Your task to perform on an android device: Search for "alienware area 51" on walmart.com, select the first entry, add it to the cart, then select checkout. Image 0: 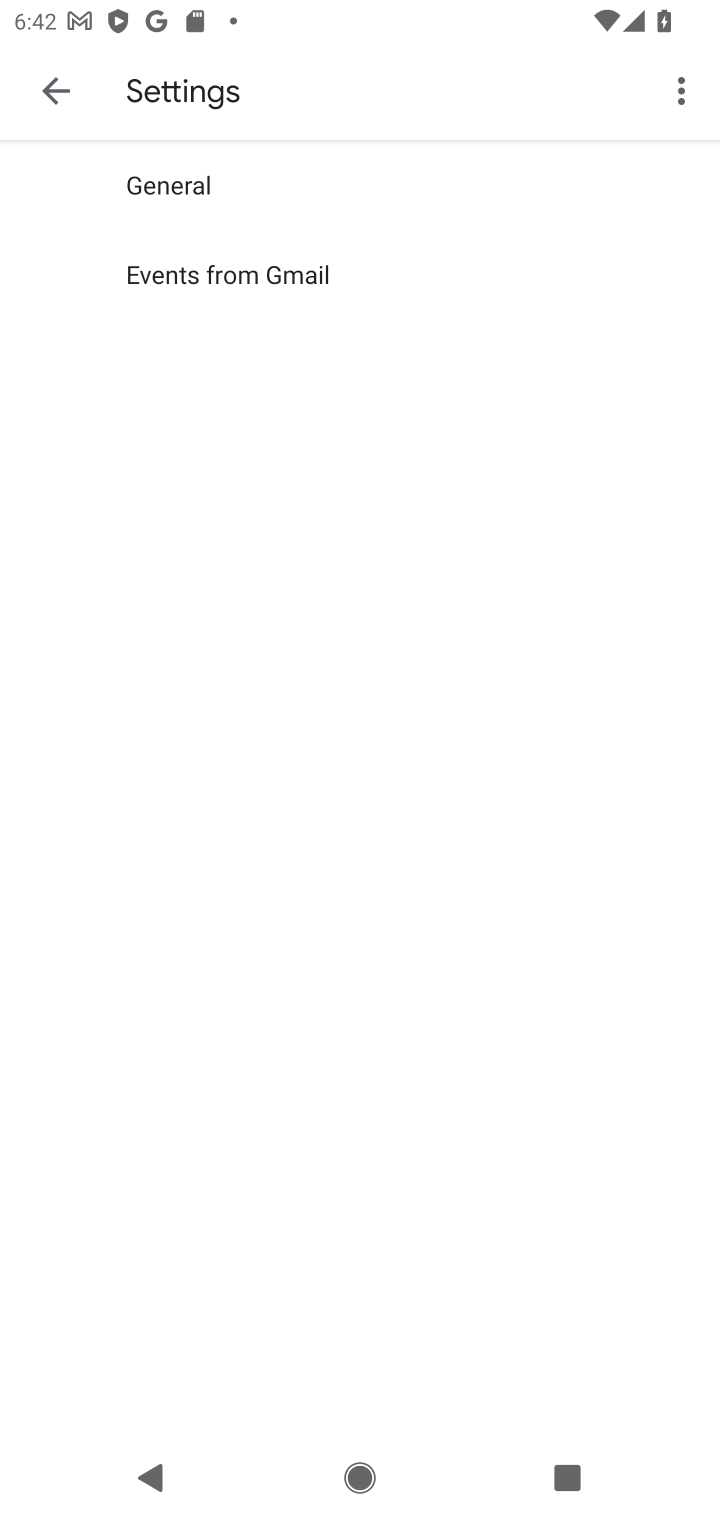
Step 0: press home button
Your task to perform on an android device: Search for "alienware area 51" on walmart.com, select the first entry, add it to the cart, then select checkout. Image 1: 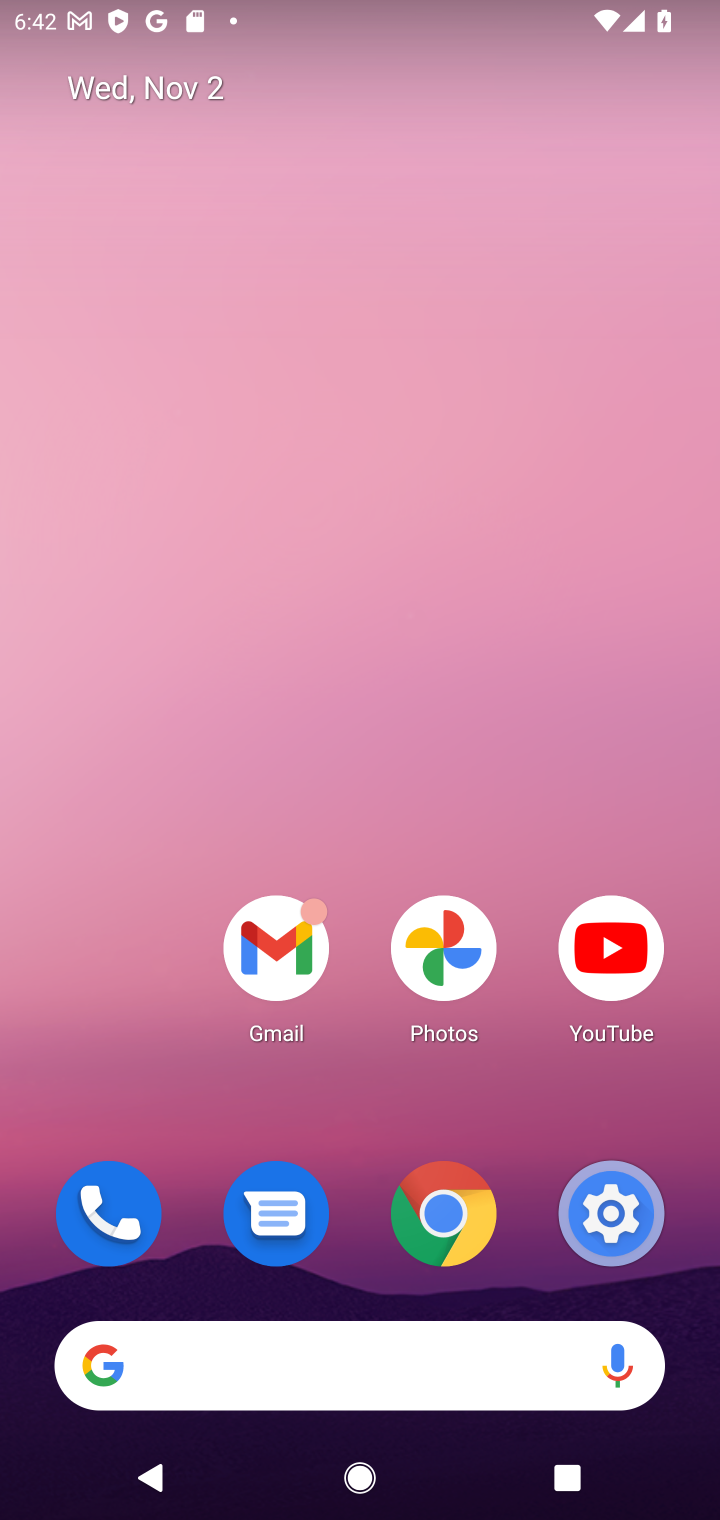
Step 1: drag from (478, 1468) to (394, 14)
Your task to perform on an android device: Search for "alienware area 51" on walmart.com, select the first entry, add it to the cart, then select checkout. Image 2: 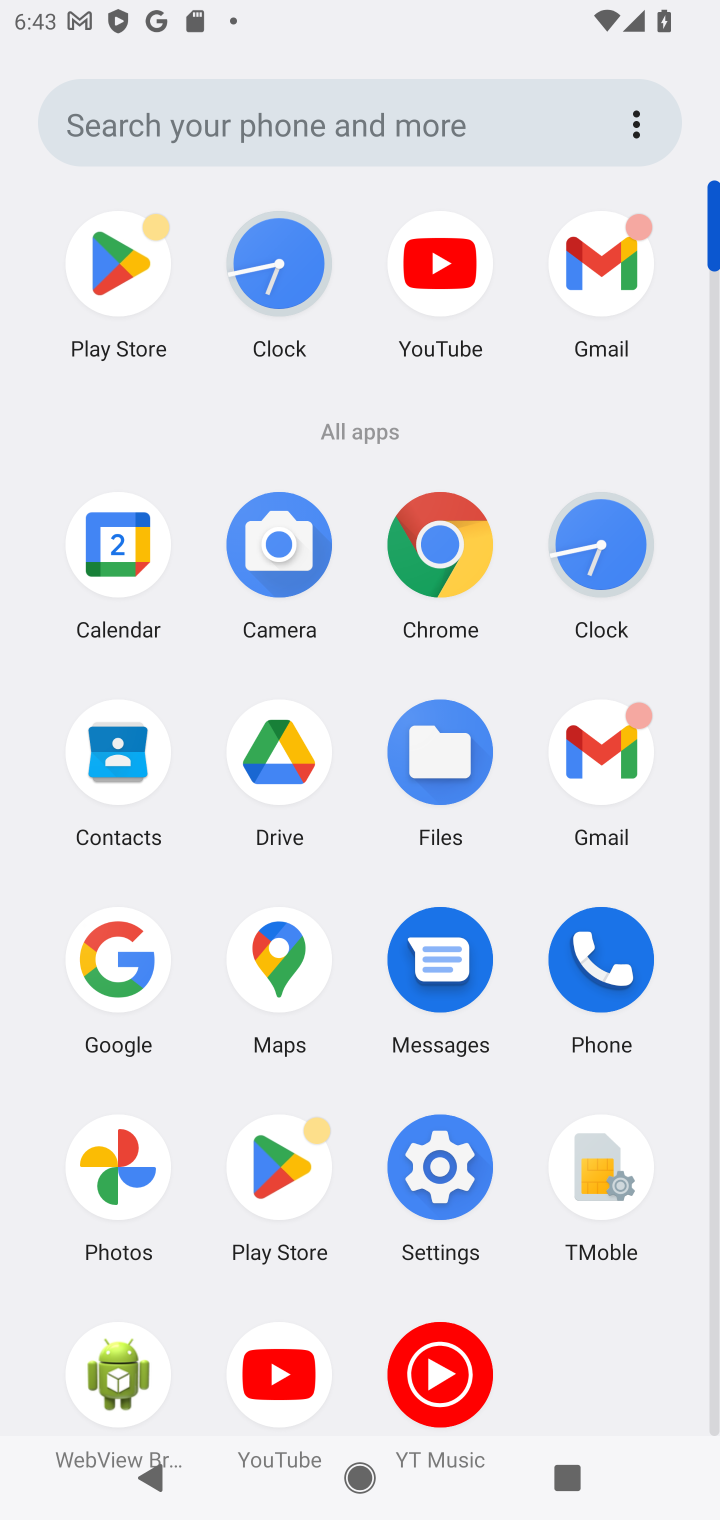
Step 2: click (429, 557)
Your task to perform on an android device: Search for "alienware area 51" on walmart.com, select the first entry, add it to the cart, then select checkout. Image 3: 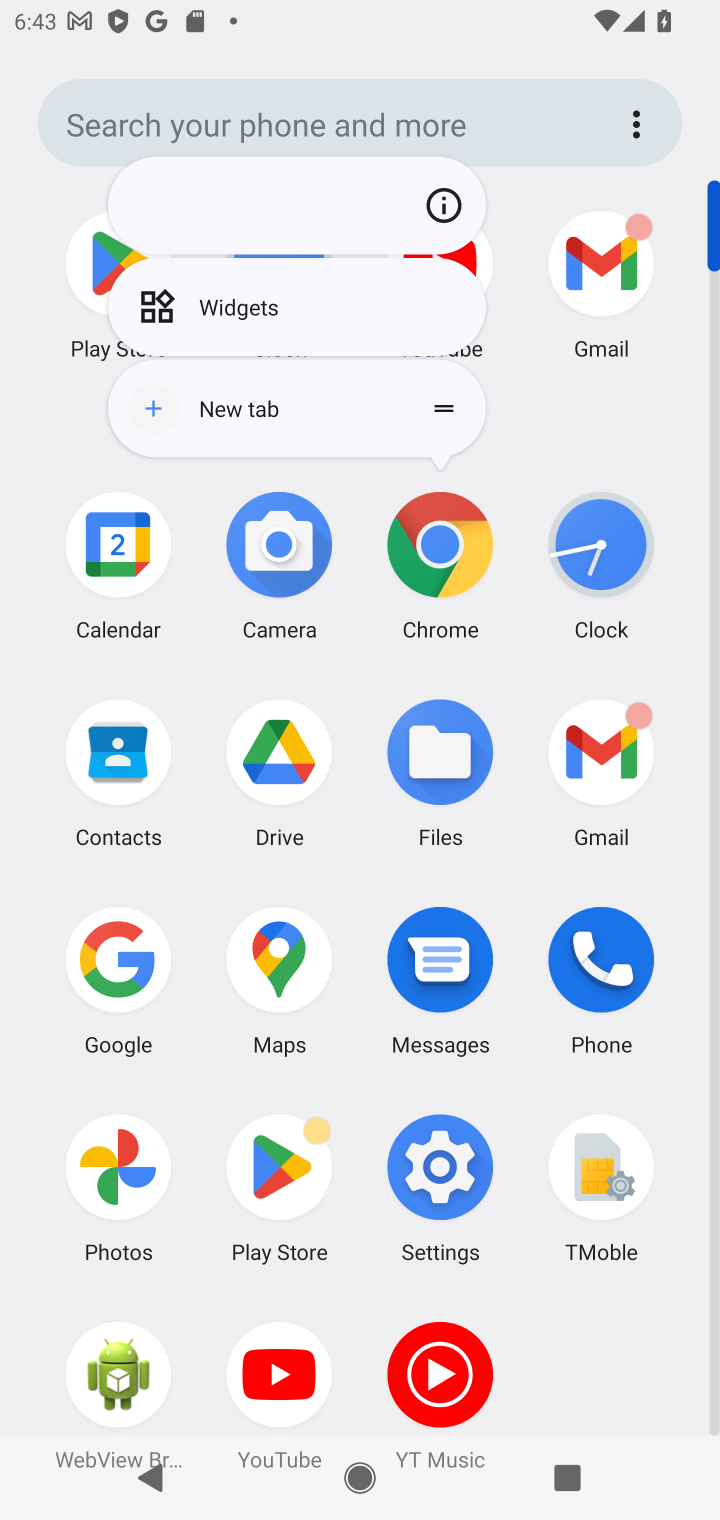
Step 3: click (435, 541)
Your task to perform on an android device: Search for "alienware area 51" on walmart.com, select the first entry, add it to the cart, then select checkout. Image 4: 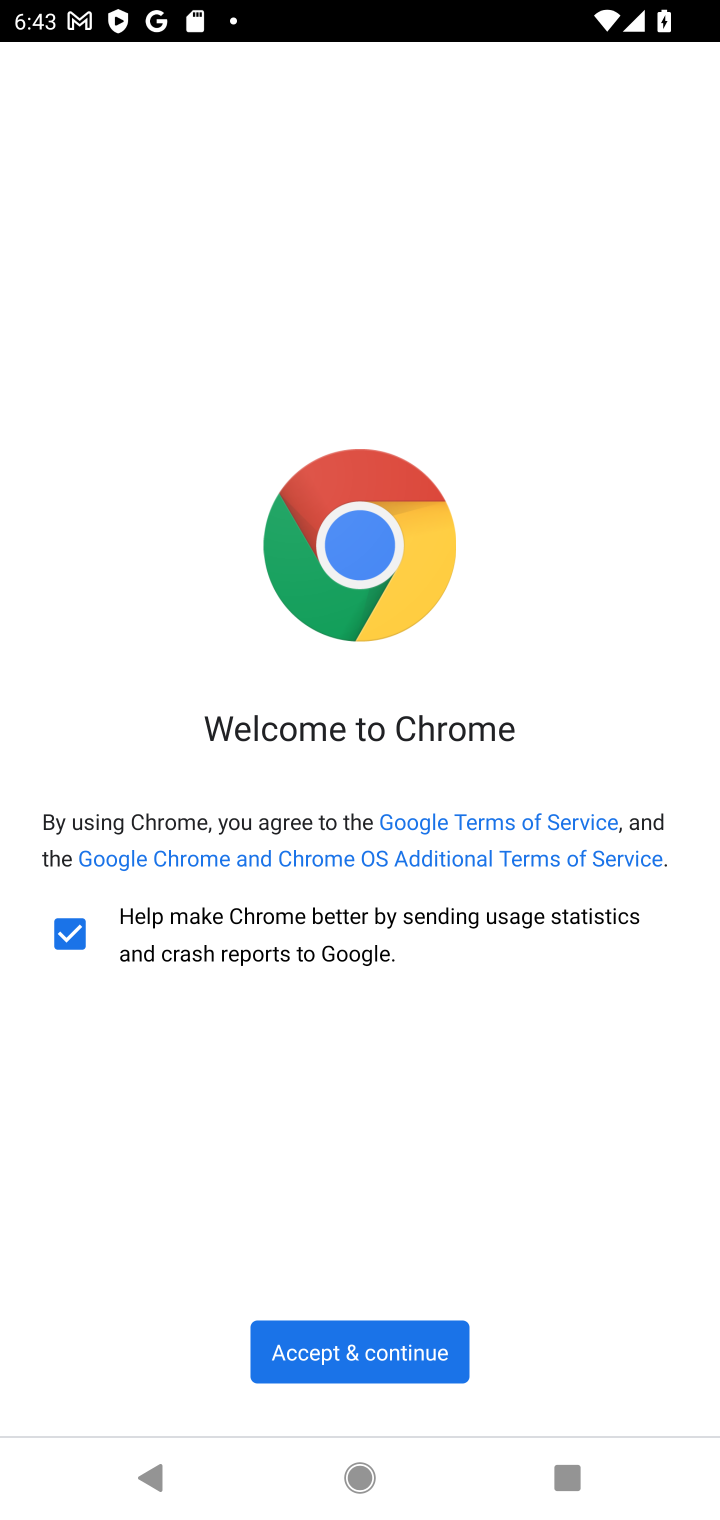
Step 4: click (369, 1333)
Your task to perform on an android device: Search for "alienware area 51" on walmart.com, select the first entry, add it to the cart, then select checkout. Image 5: 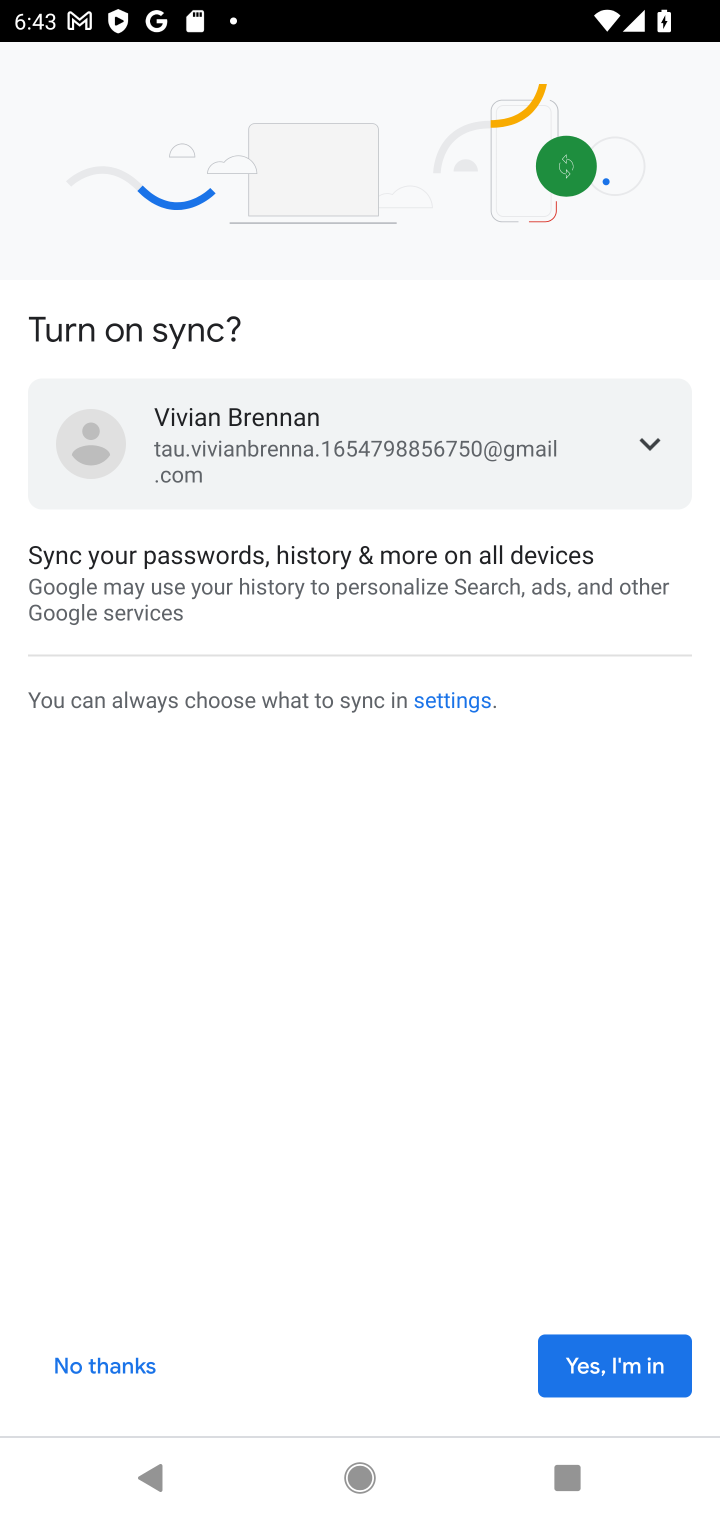
Step 5: click (627, 1364)
Your task to perform on an android device: Search for "alienware area 51" on walmart.com, select the first entry, add it to the cart, then select checkout. Image 6: 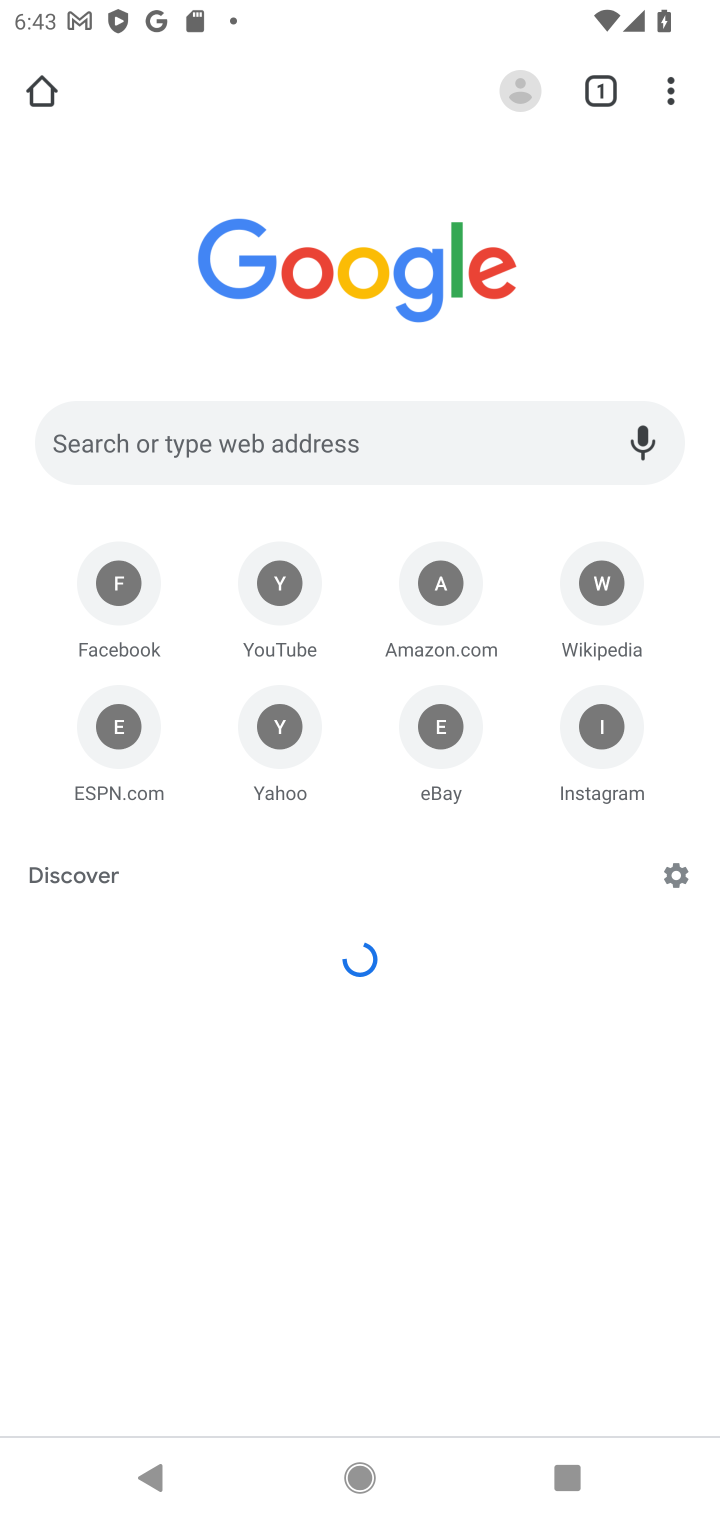
Step 6: click (627, 1364)
Your task to perform on an android device: Search for "alienware area 51" on walmart.com, select the first entry, add it to the cart, then select checkout. Image 7: 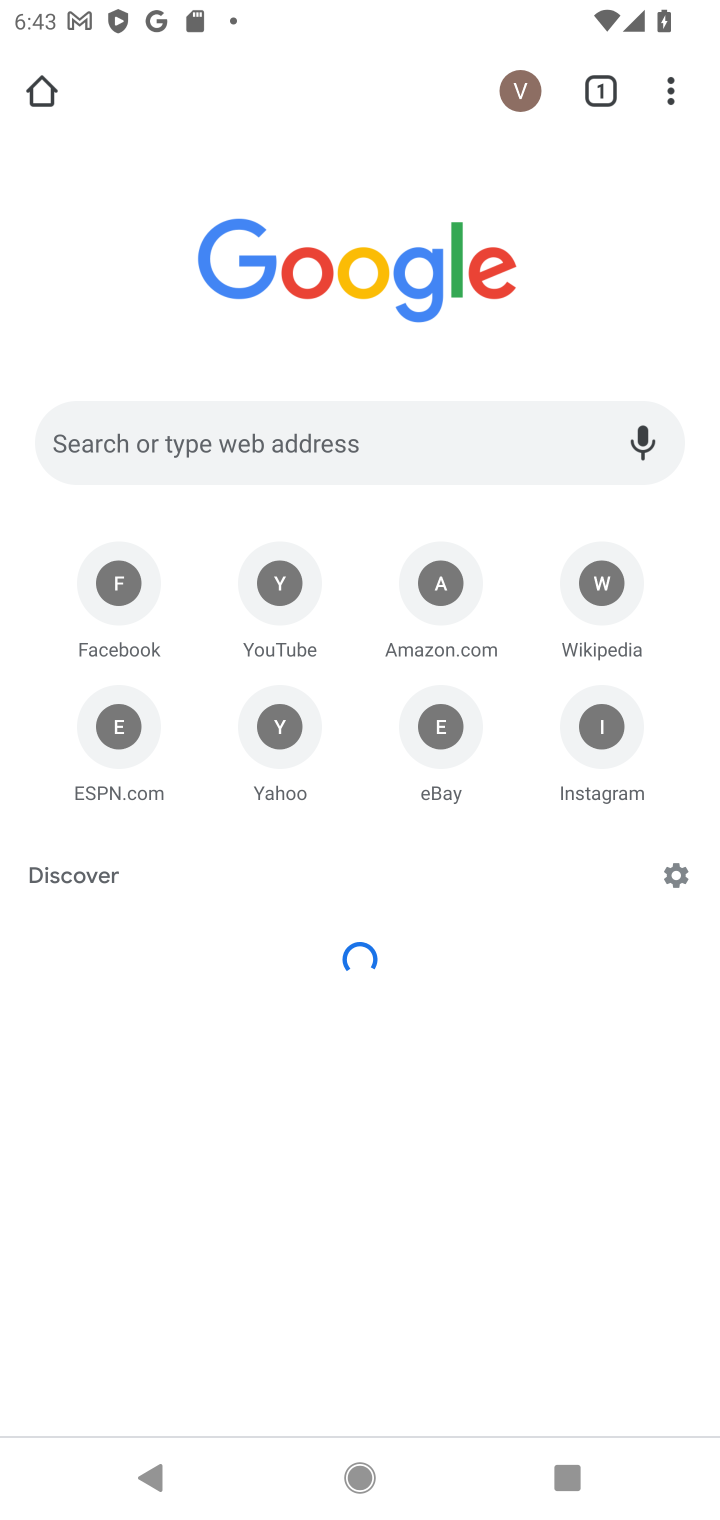
Step 7: click (391, 444)
Your task to perform on an android device: Search for "alienware area 51" on walmart.com, select the first entry, add it to the cart, then select checkout. Image 8: 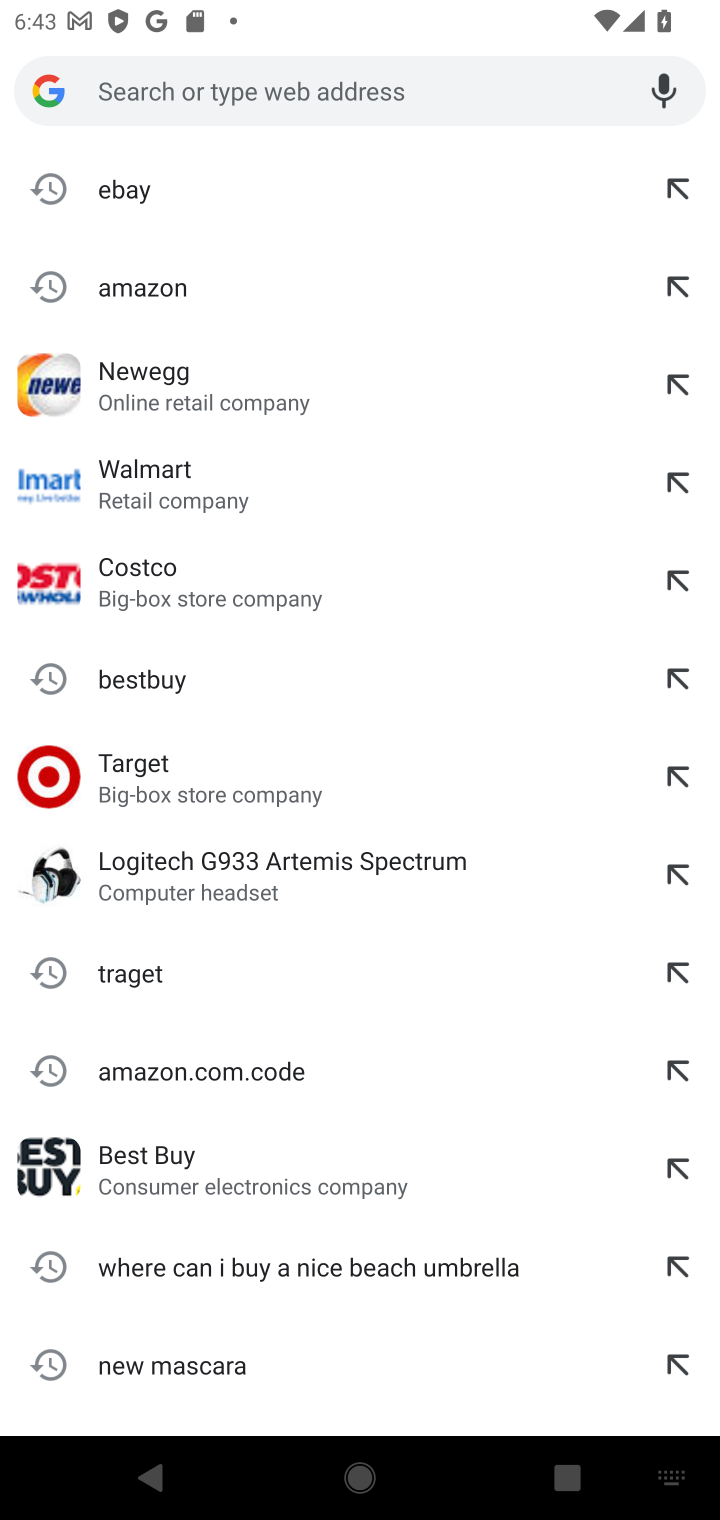
Step 8: type "walmart.com"
Your task to perform on an android device: Search for "alienware area 51" on walmart.com, select the first entry, add it to the cart, then select checkout. Image 9: 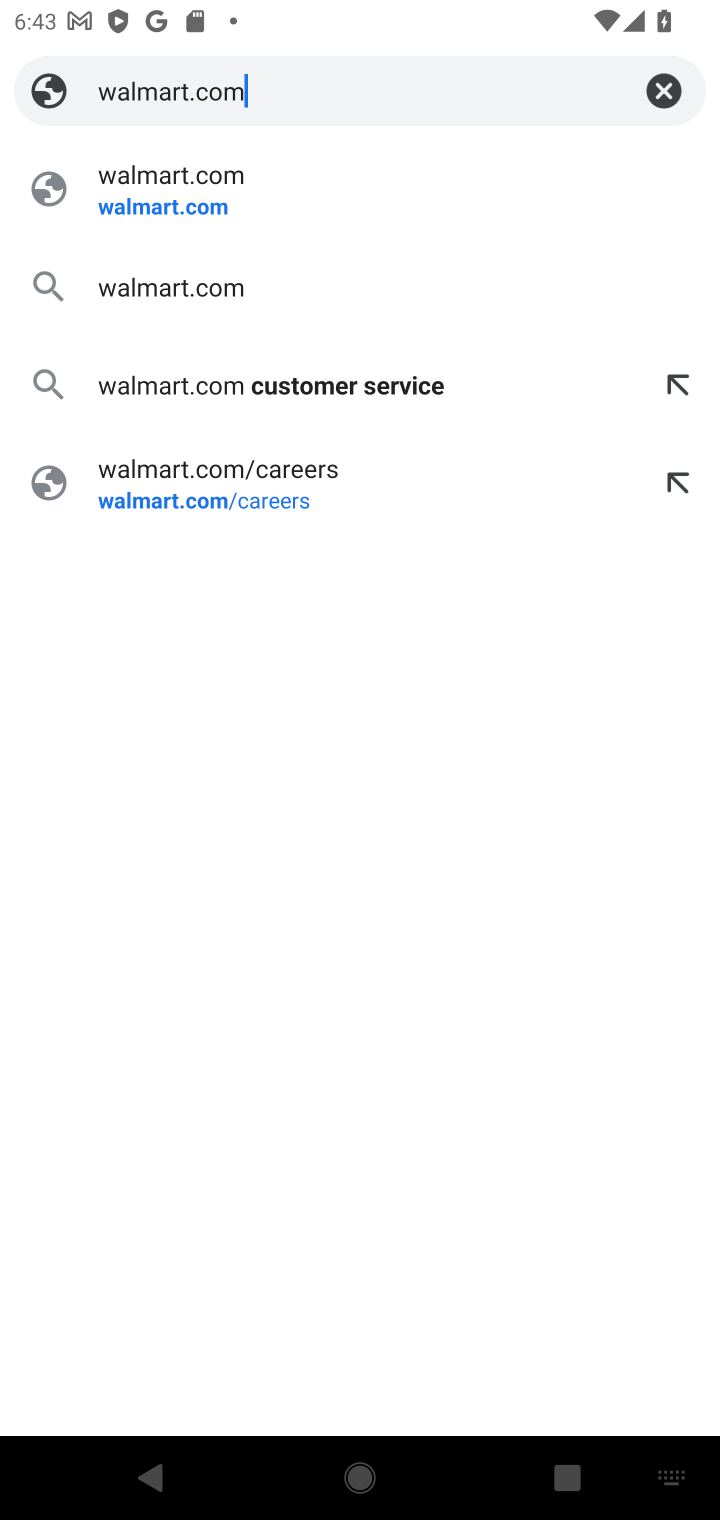
Step 9: click (134, 196)
Your task to perform on an android device: Search for "alienware area 51" on walmart.com, select the first entry, add it to the cart, then select checkout. Image 10: 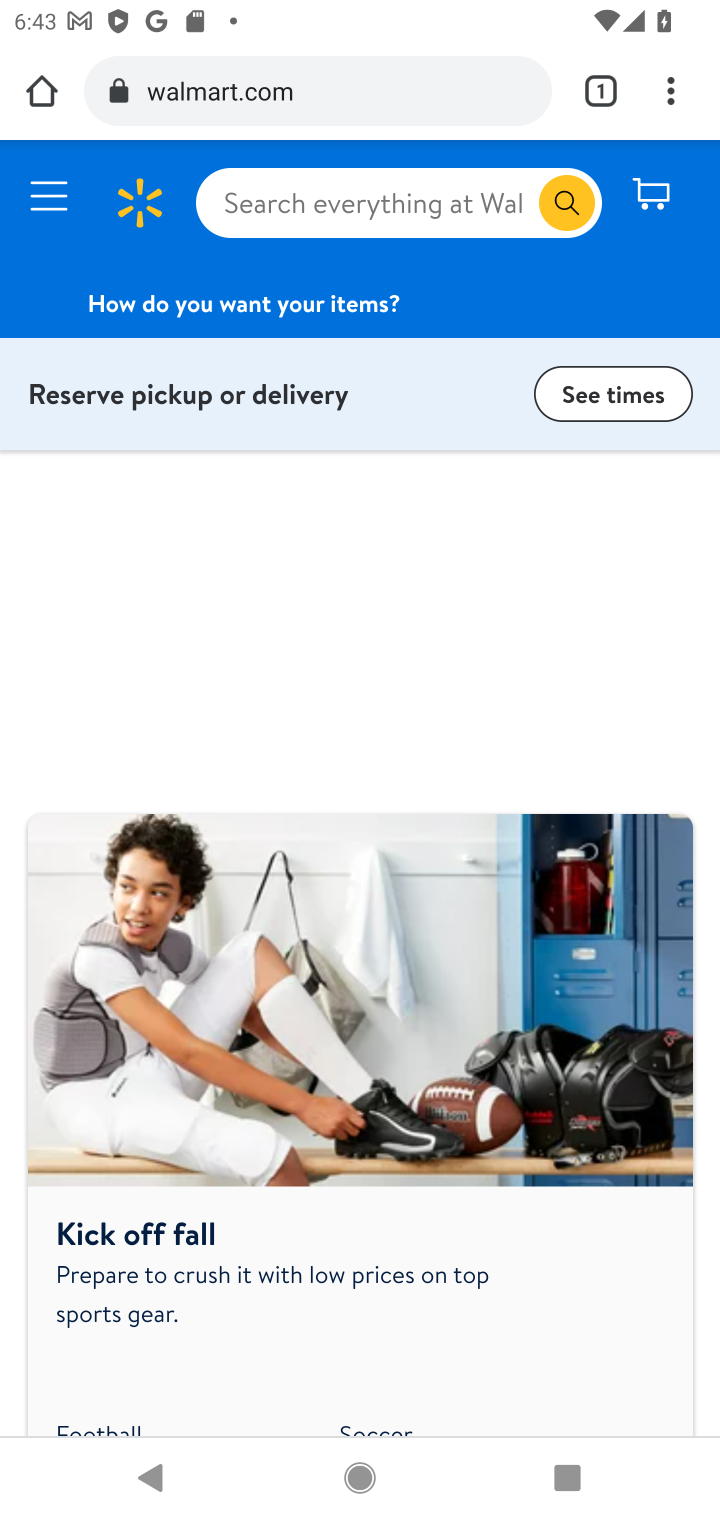
Step 10: click (326, 195)
Your task to perform on an android device: Search for "alienware area 51" on walmart.com, select the first entry, add it to the cart, then select checkout. Image 11: 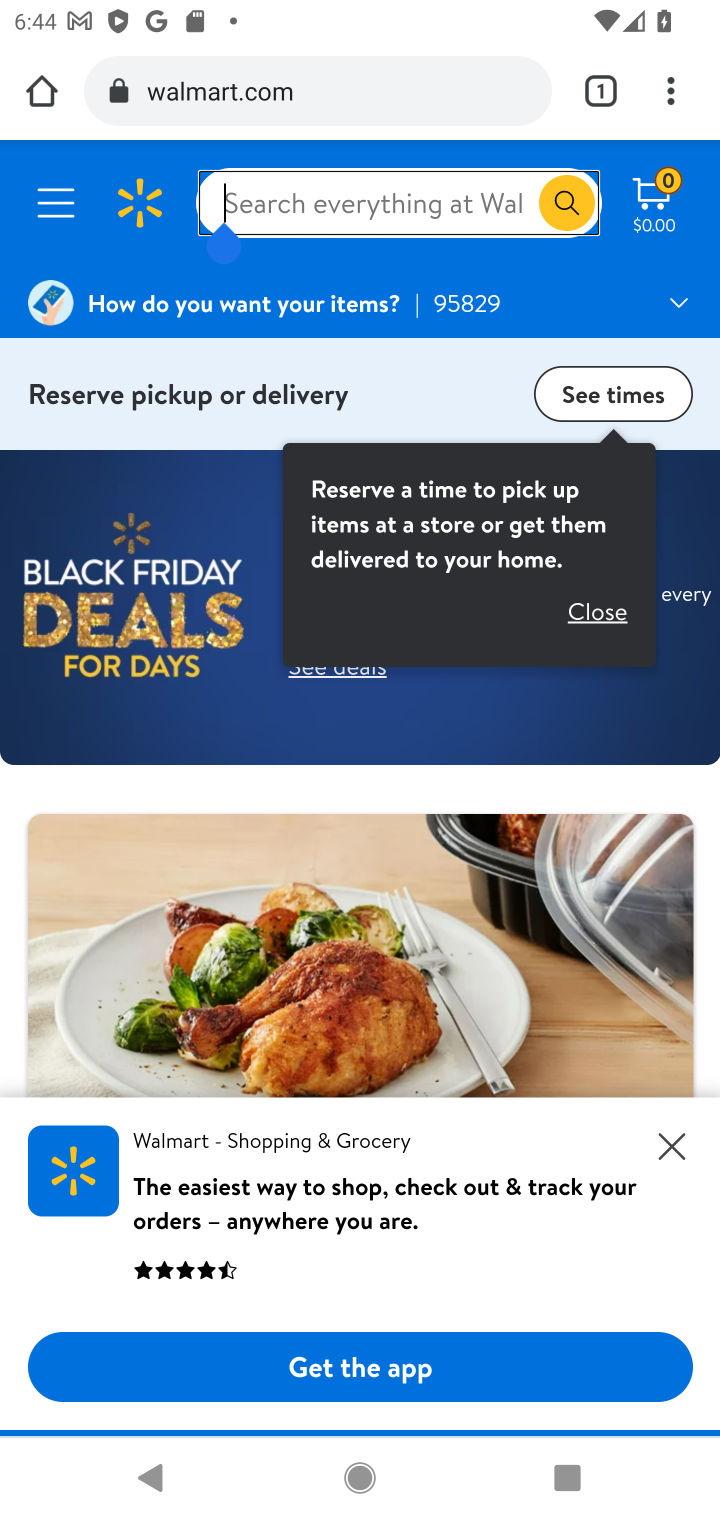
Step 11: type "alienware area 51"
Your task to perform on an android device: Search for "alienware area 51" on walmart.com, select the first entry, add it to the cart, then select checkout. Image 12: 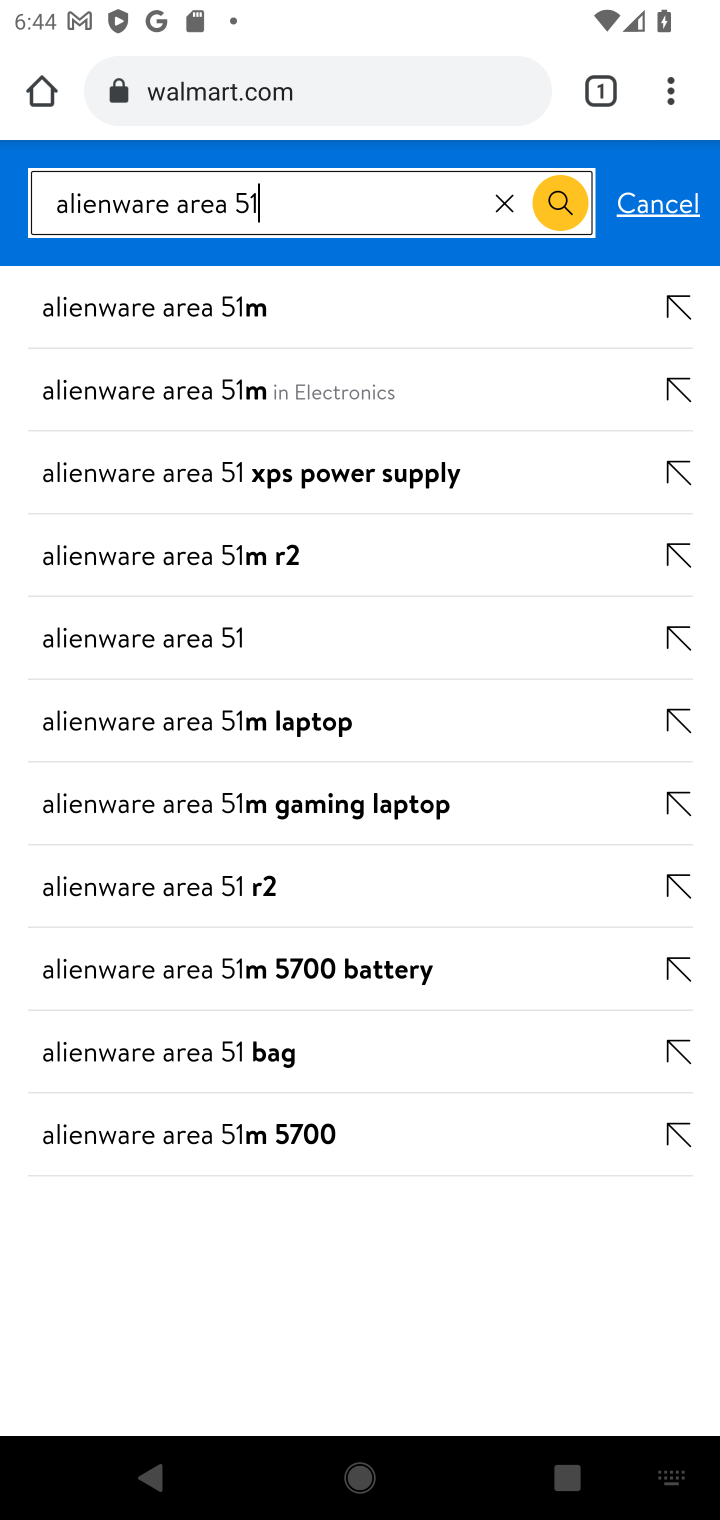
Step 12: click (135, 303)
Your task to perform on an android device: Search for "alienware area 51" on walmart.com, select the first entry, add it to the cart, then select checkout. Image 13: 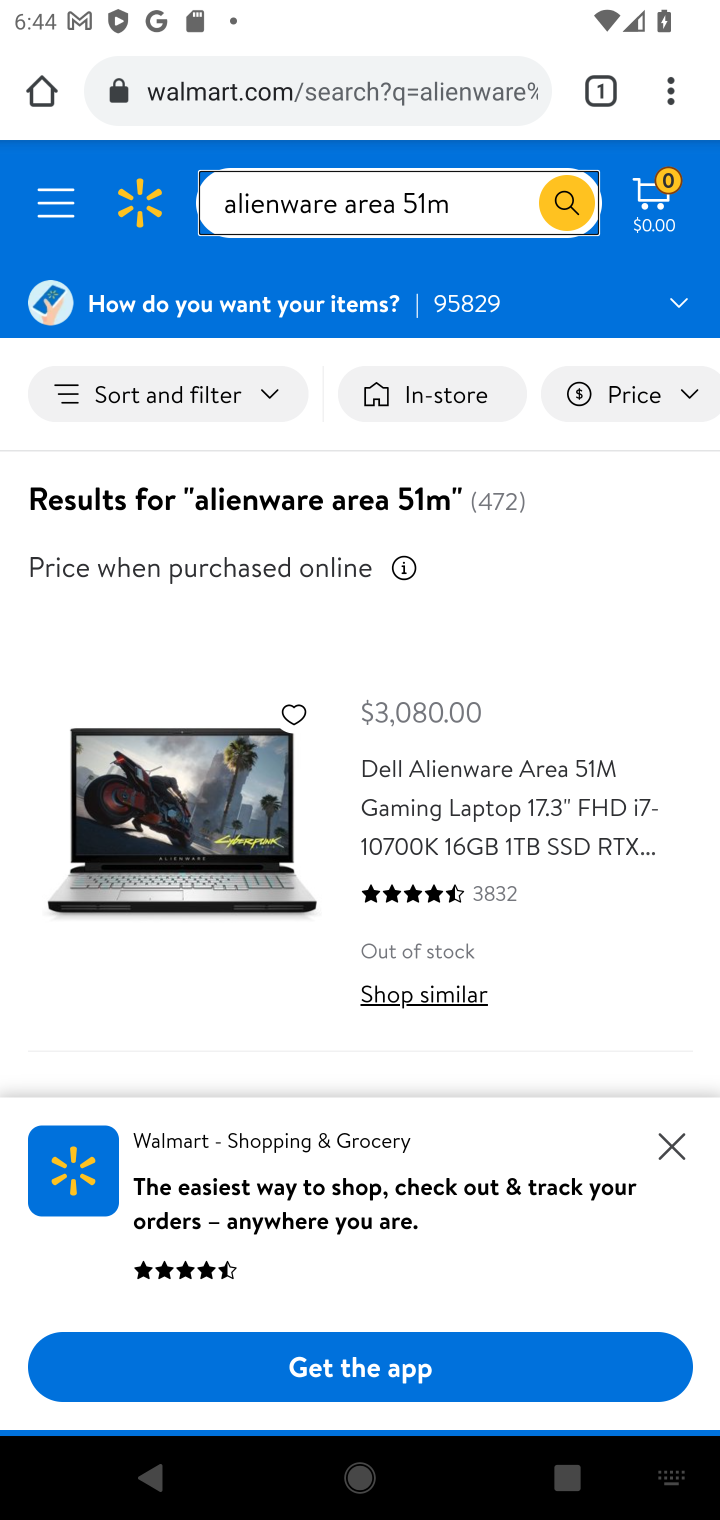
Step 13: drag from (366, 957) to (351, 457)
Your task to perform on an android device: Search for "alienware area 51" on walmart.com, select the first entry, add it to the cart, then select checkout. Image 14: 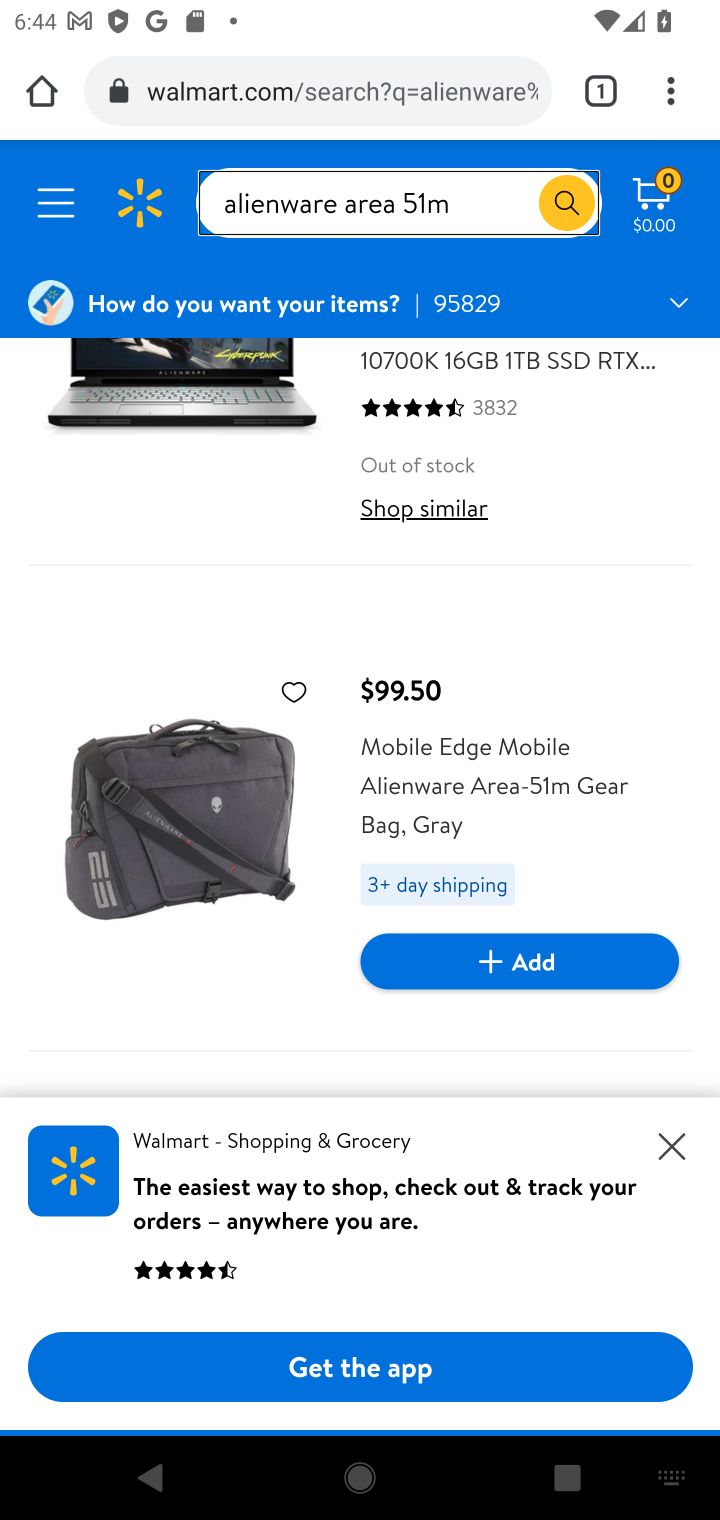
Step 14: click (338, 417)
Your task to perform on an android device: Search for "alienware area 51" on walmart.com, select the first entry, add it to the cart, then select checkout. Image 15: 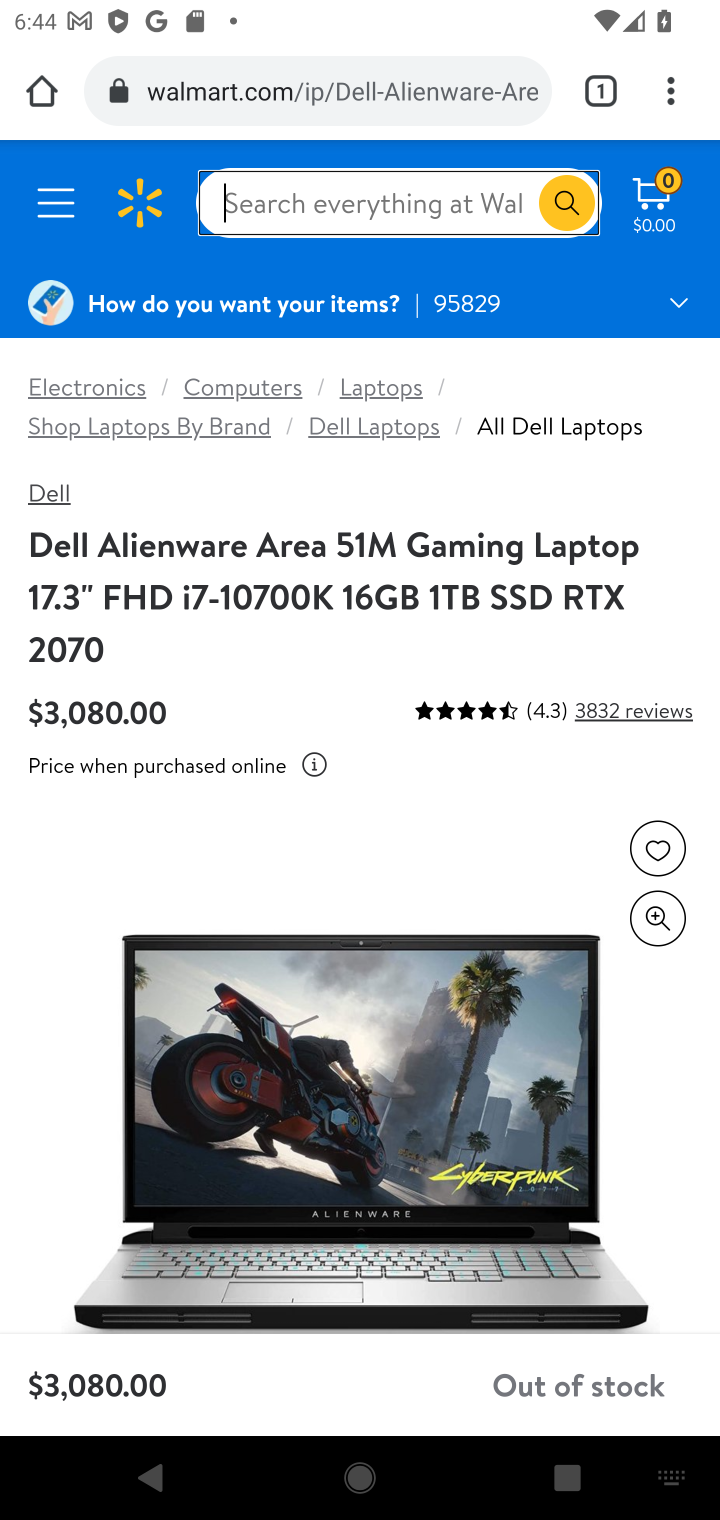
Step 15: drag from (397, 860) to (465, 463)
Your task to perform on an android device: Search for "alienware area 51" on walmart.com, select the first entry, add it to the cart, then select checkout. Image 16: 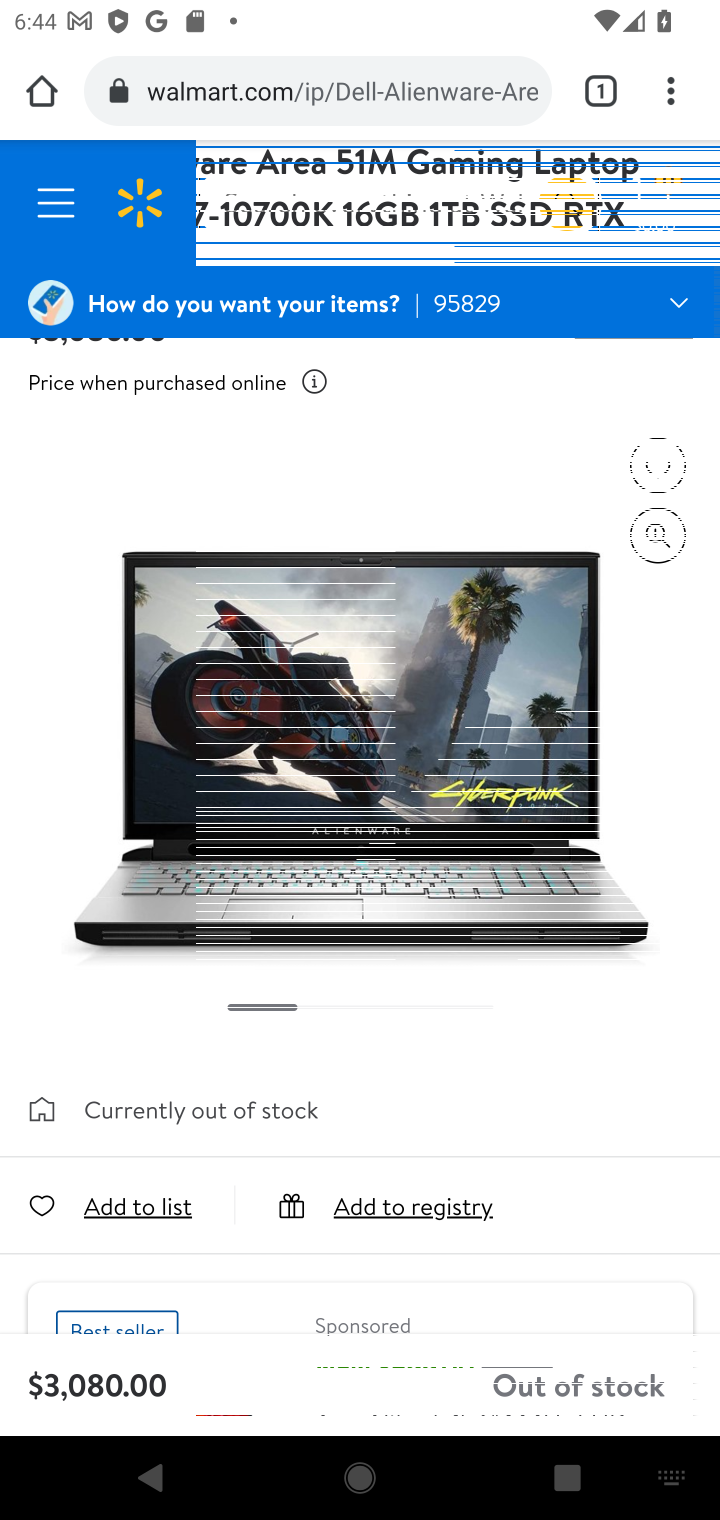
Step 16: drag from (447, 1175) to (509, 540)
Your task to perform on an android device: Search for "alienware area 51" on walmart.com, select the first entry, add it to the cart, then select checkout. Image 17: 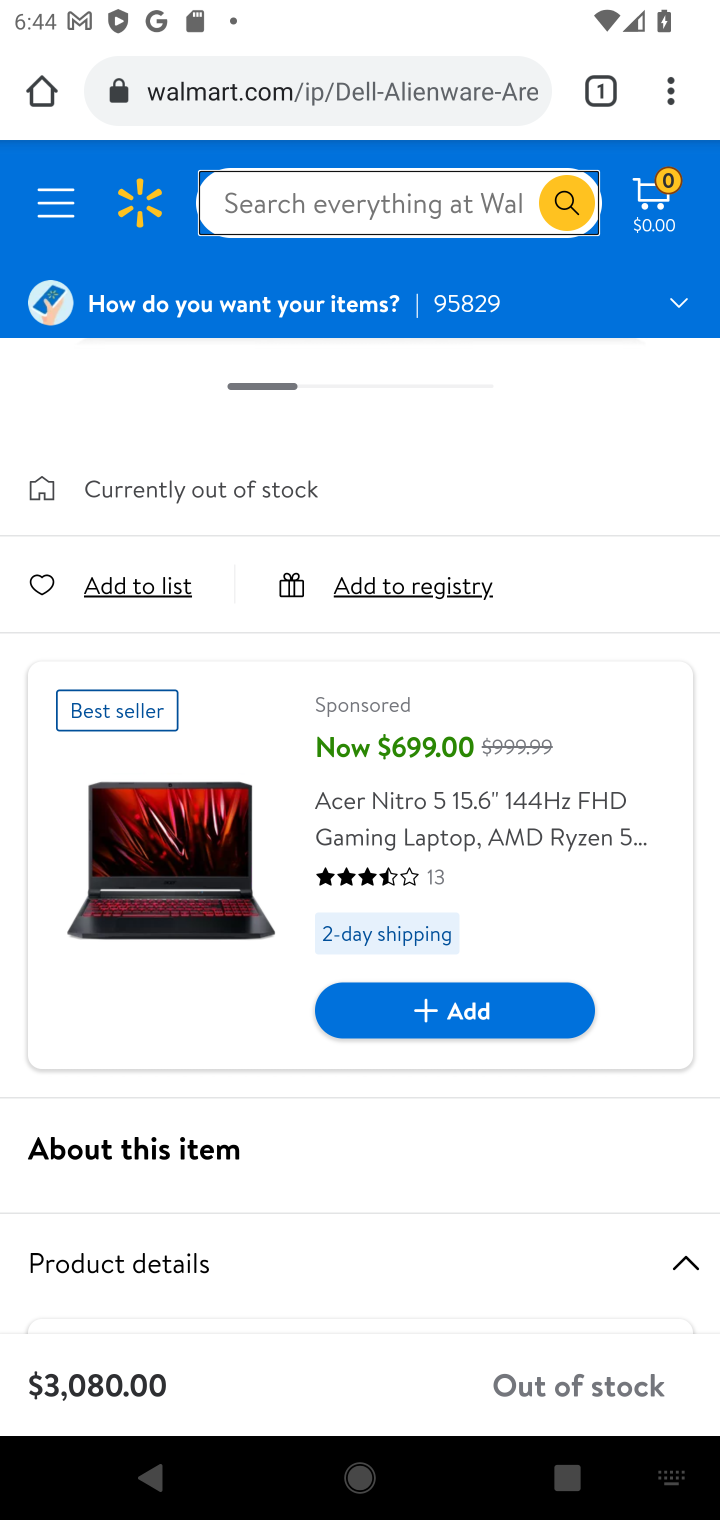
Step 17: drag from (582, 933) to (597, 1078)
Your task to perform on an android device: Search for "alienware area 51" on walmart.com, select the first entry, add it to the cart, then select checkout. Image 18: 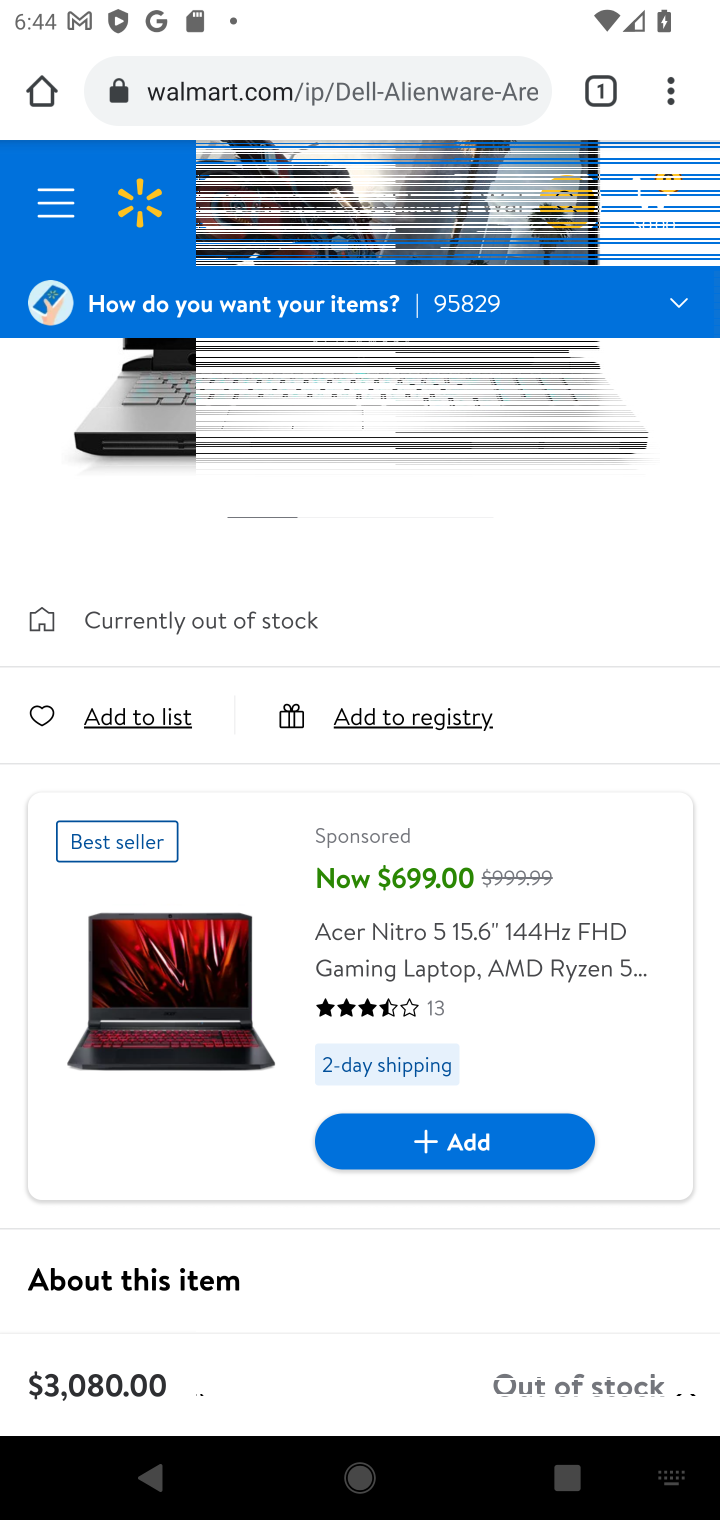
Step 18: click (473, 1110)
Your task to perform on an android device: Search for "alienware area 51" on walmart.com, select the first entry, add it to the cart, then select checkout. Image 19: 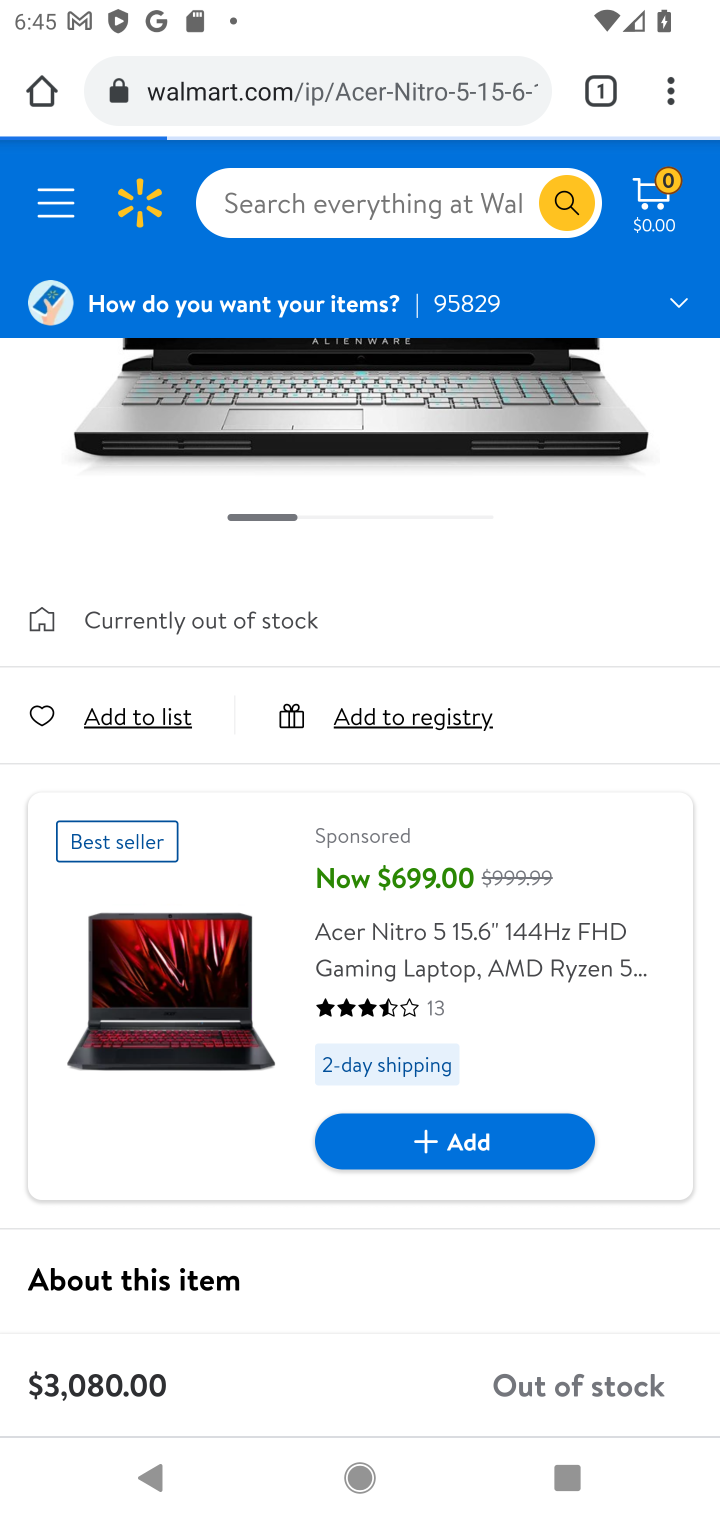
Step 19: click (469, 1123)
Your task to perform on an android device: Search for "alienware area 51" on walmart.com, select the first entry, add it to the cart, then select checkout. Image 20: 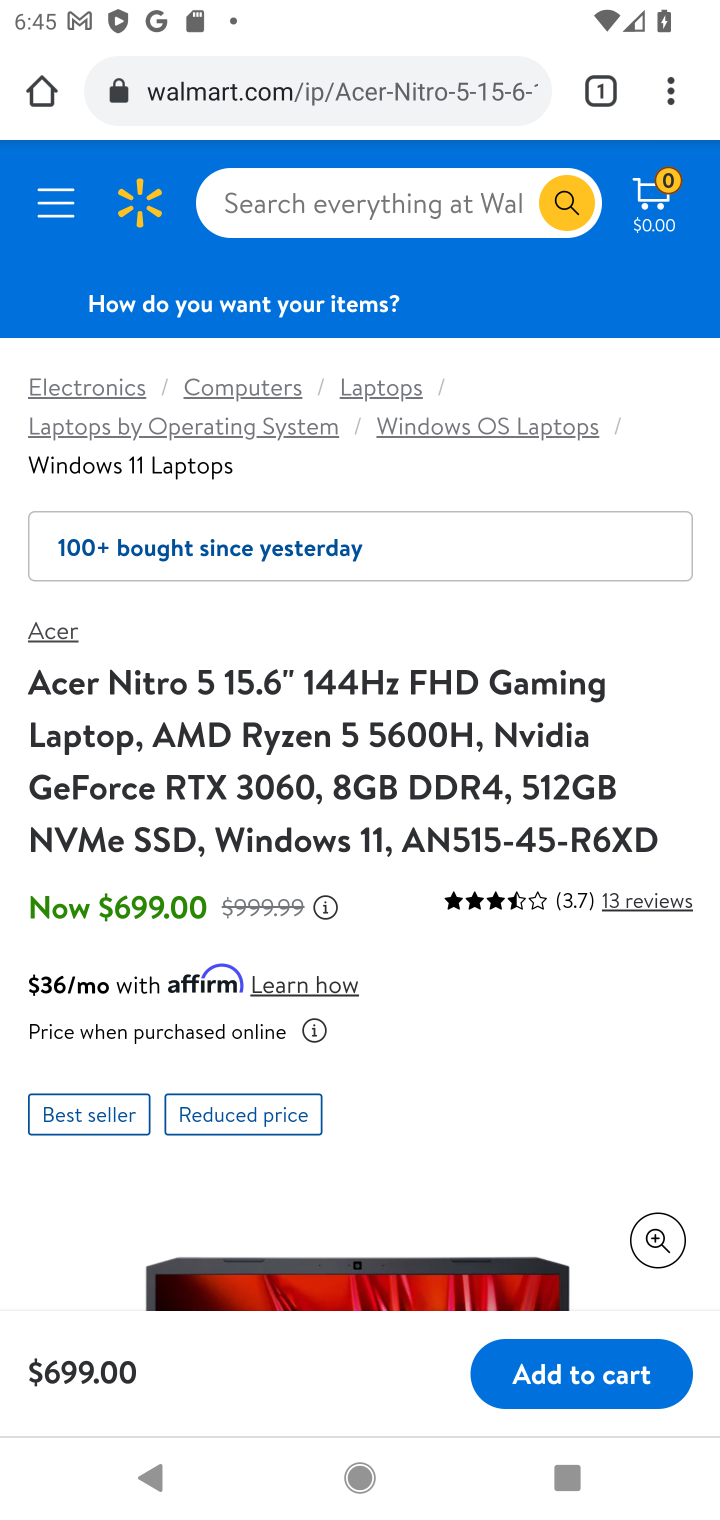
Step 20: click (604, 1370)
Your task to perform on an android device: Search for "alienware area 51" on walmart.com, select the first entry, add it to the cart, then select checkout. Image 21: 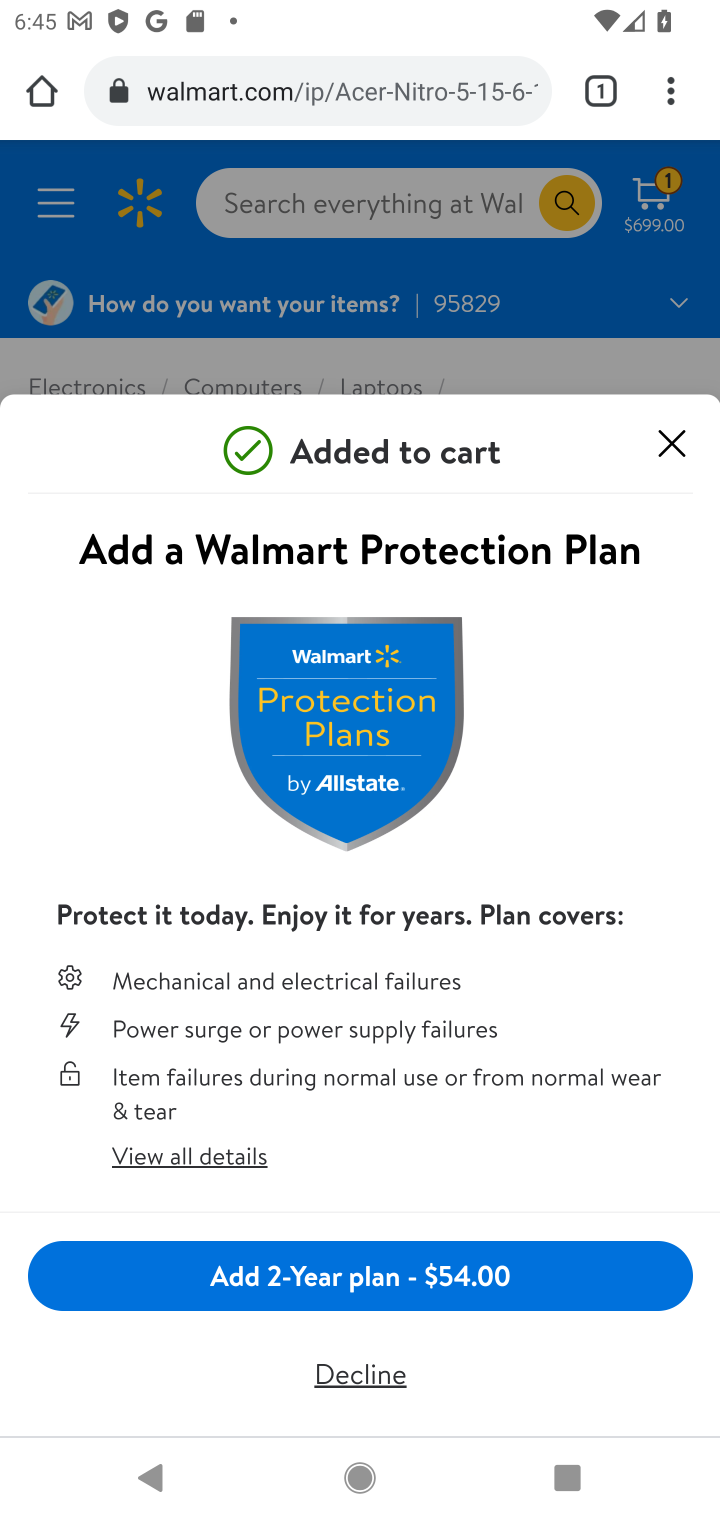
Step 21: task complete